Your task to perform on an android device: turn on the 24-hour format for clock Image 0: 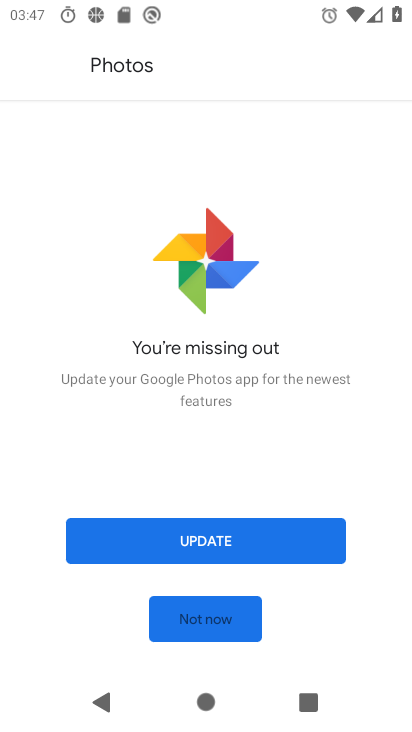
Step 0: press home button
Your task to perform on an android device: turn on the 24-hour format for clock Image 1: 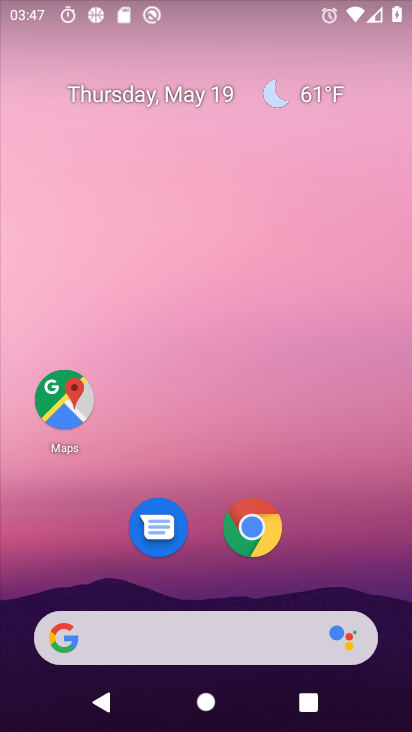
Step 1: drag from (178, 597) to (257, 90)
Your task to perform on an android device: turn on the 24-hour format for clock Image 2: 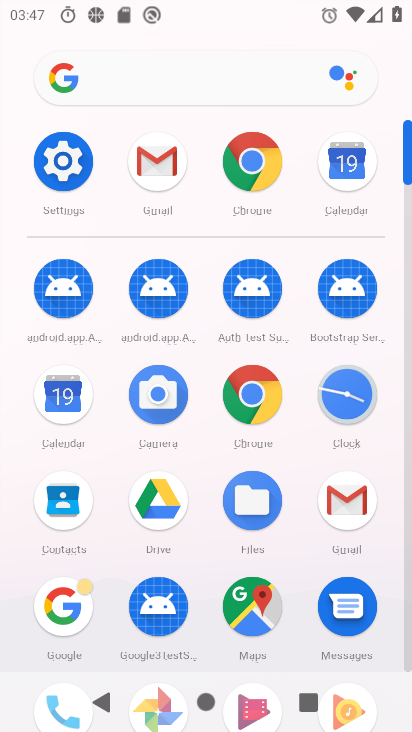
Step 2: click (347, 402)
Your task to perform on an android device: turn on the 24-hour format for clock Image 3: 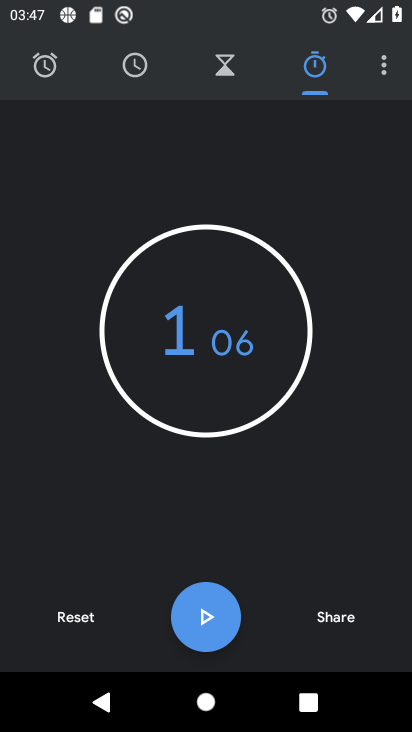
Step 3: click (378, 68)
Your task to perform on an android device: turn on the 24-hour format for clock Image 4: 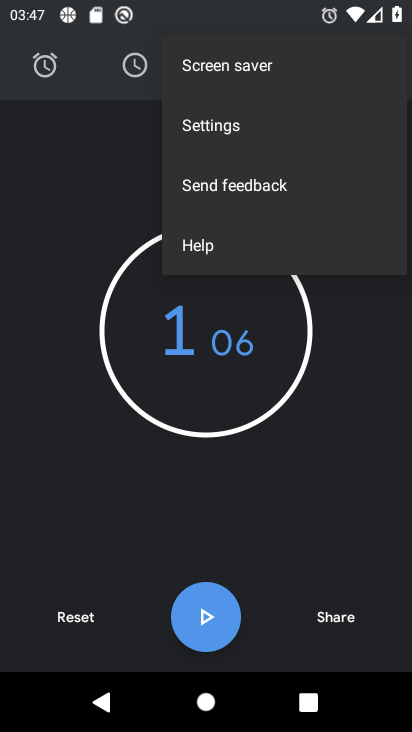
Step 4: click (212, 122)
Your task to perform on an android device: turn on the 24-hour format for clock Image 5: 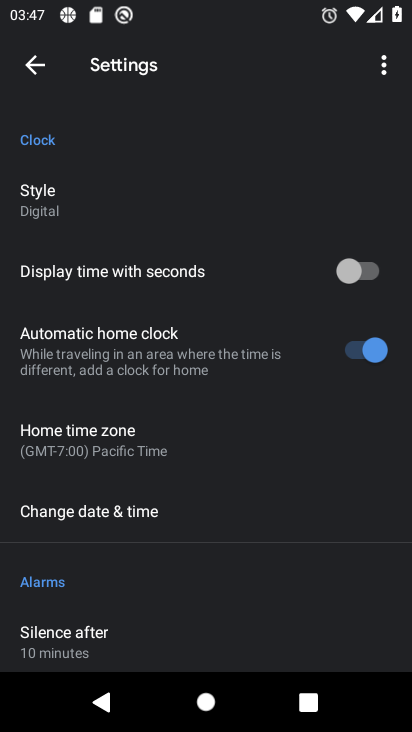
Step 5: click (94, 519)
Your task to perform on an android device: turn on the 24-hour format for clock Image 6: 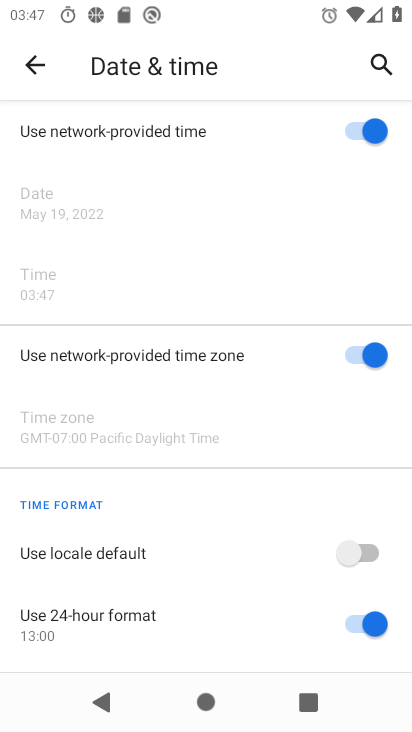
Step 6: task complete